Your task to perform on an android device: open app "Speedtest by Ookla" (install if not already installed) Image 0: 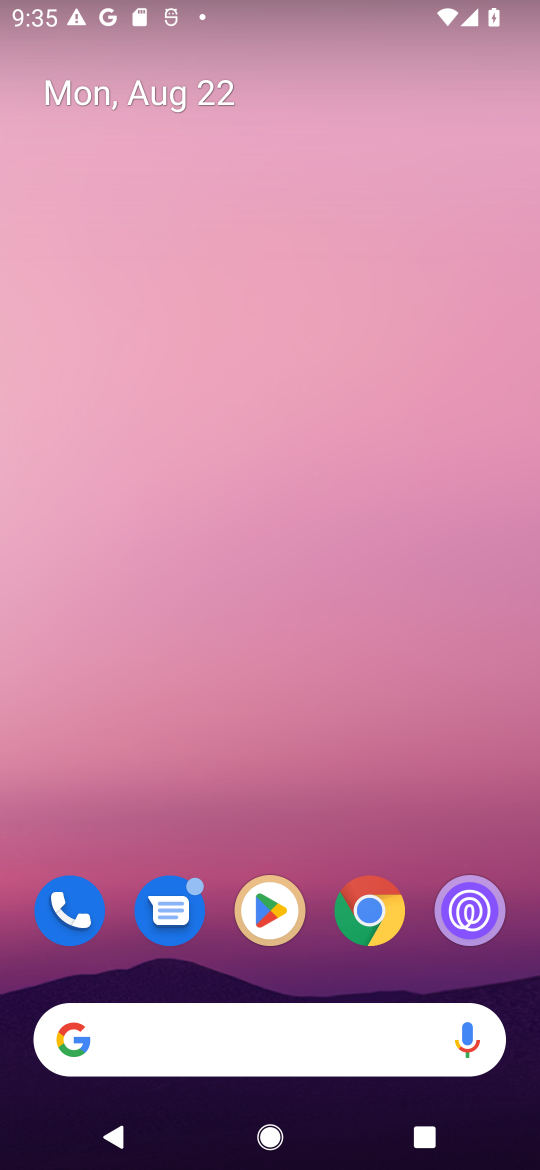
Step 0: click (278, 905)
Your task to perform on an android device: open app "Speedtest by Ookla" (install if not already installed) Image 1: 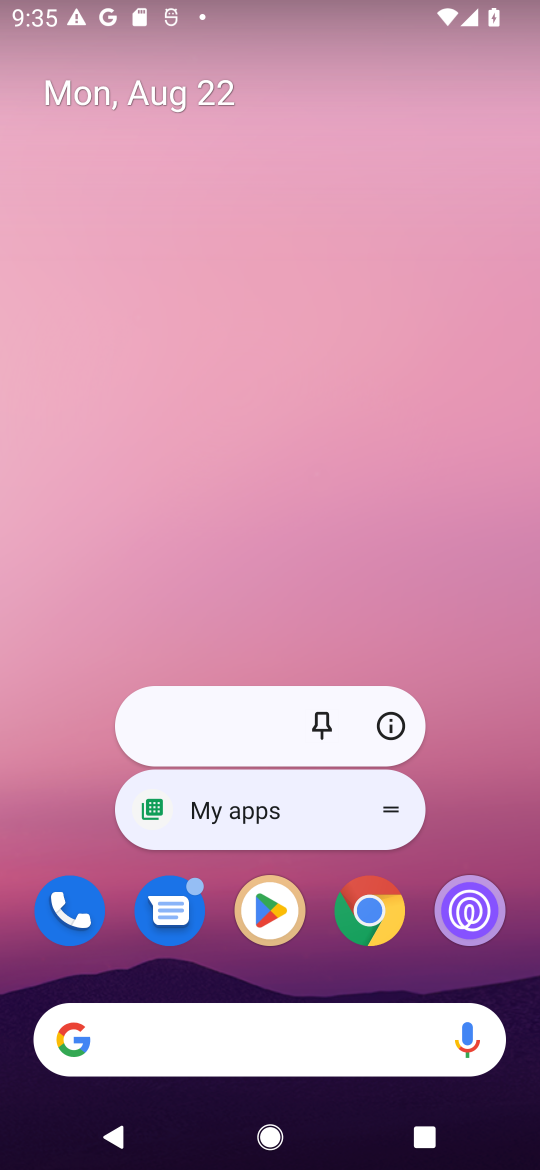
Step 1: click (276, 907)
Your task to perform on an android device: open app "Speedtest by Ookla" (install if not already installed) Image 2: 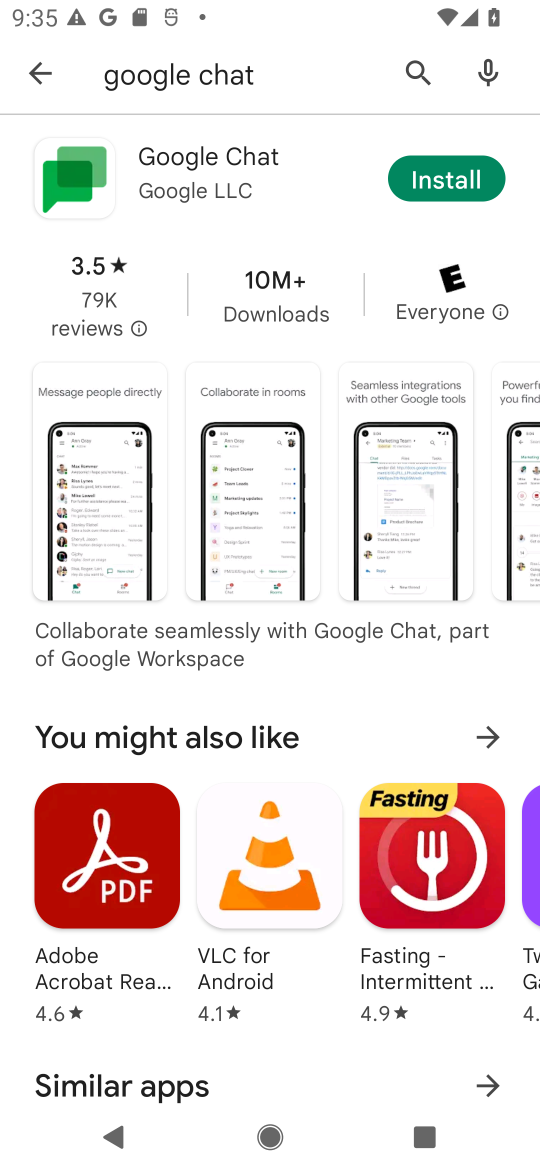
Step 2: click (426, 85)
Your task to perform on an android device: open app "Speedtest by Ookla" (install if not already installed) Image 3: 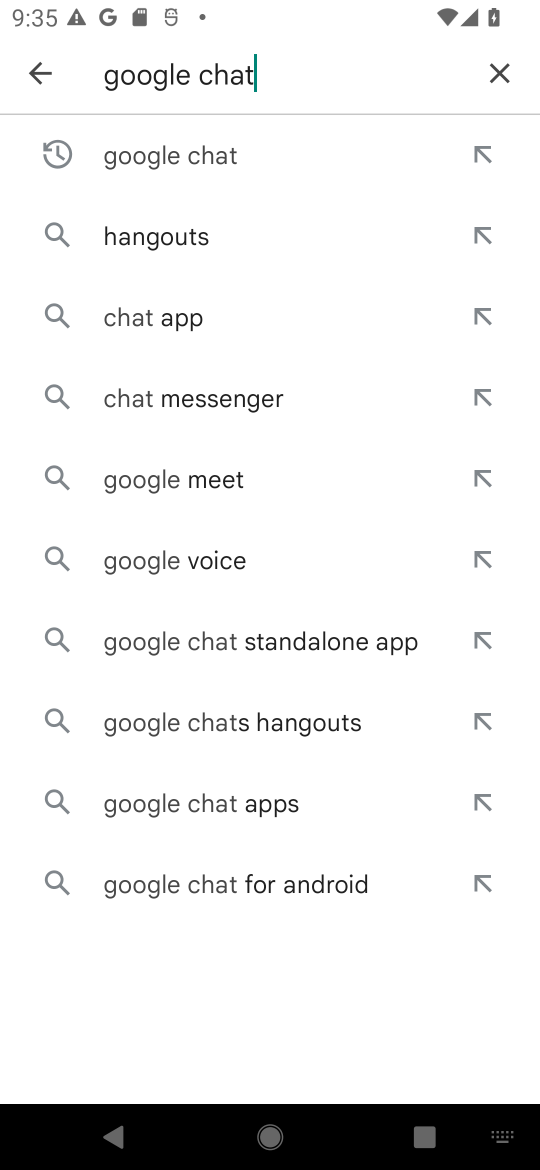
Step 3: click (486, 64)
Your task to perform on an android device: open app "Speedtest by Ookla" (install if not already installed) Image 4: 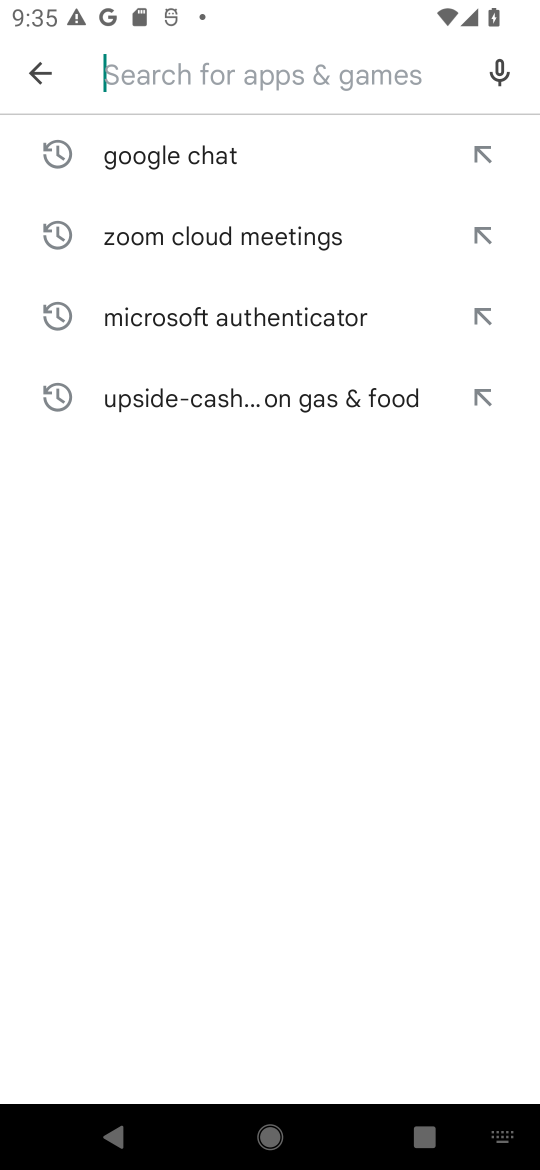
Step 4: type "Speedtest by Ookla"
Your task to perform on an android device: open app "Speedtest by Ookla" (install if not already installed) Image 5: 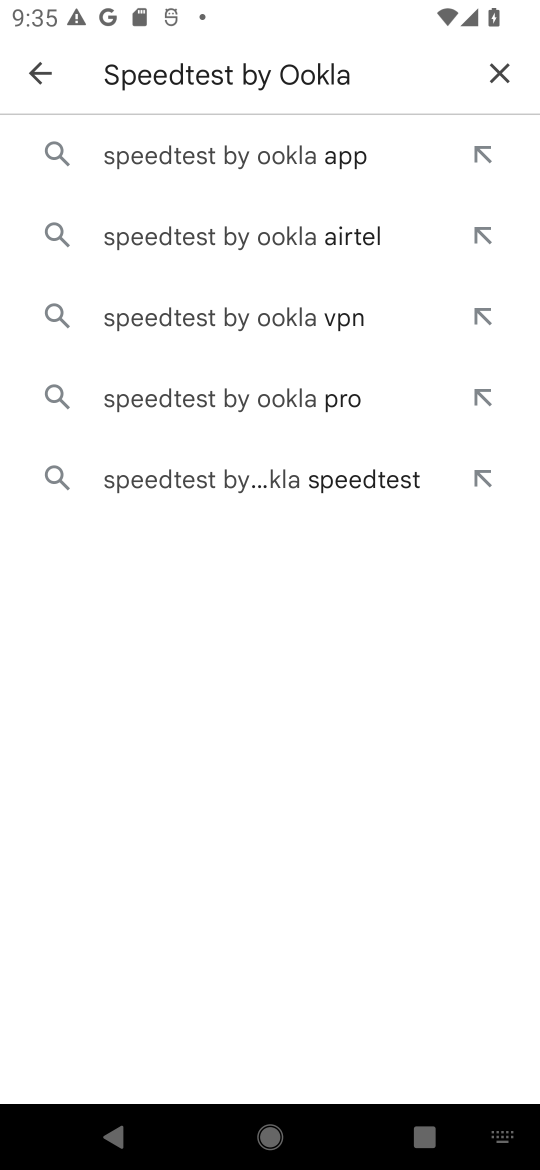
Step 5: click (263, 164)
Your task to perform on an android device: open app "Speedtest by Ookla" (install if not already installed) Image 6: 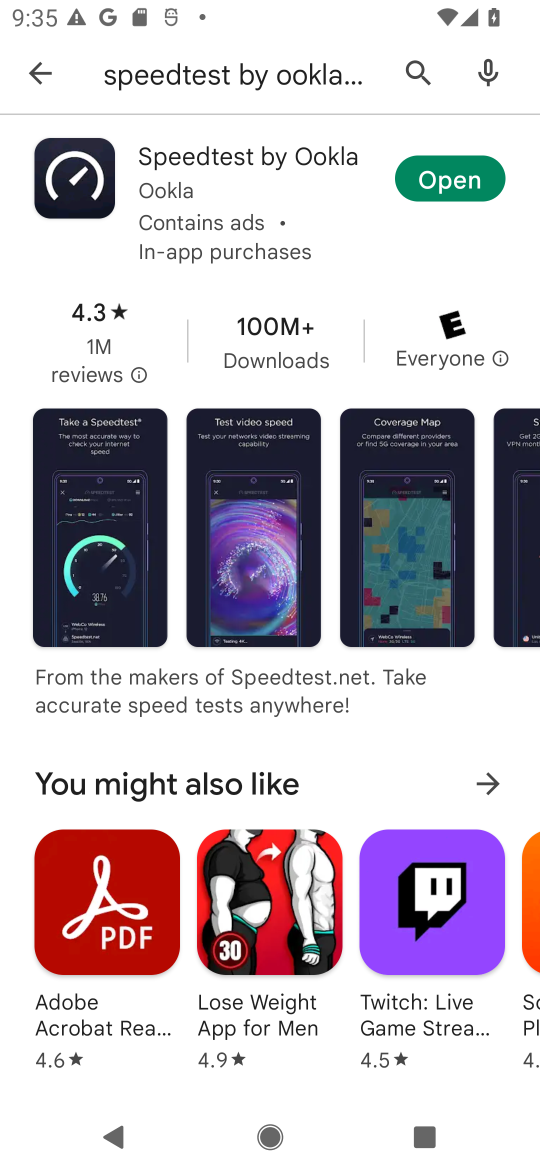
Step 6: click (438, 186)
Your task to perform on an android device: open app "Speedtest by Ookla" (install if not already installed) Image 7: 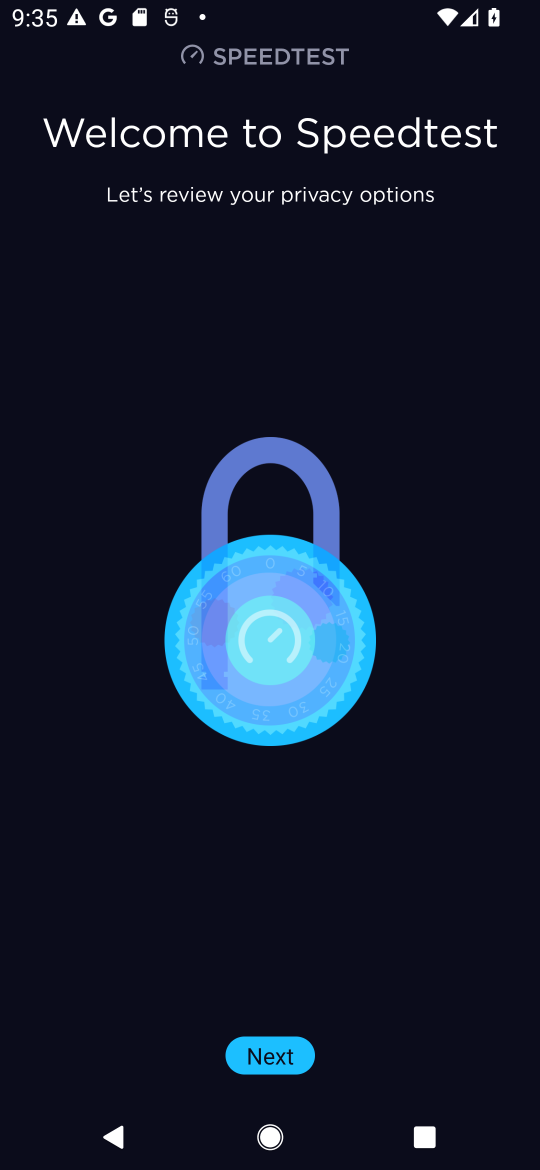
Step 7: task complete